Your task to perform on an android device: change timer sound Image 0: 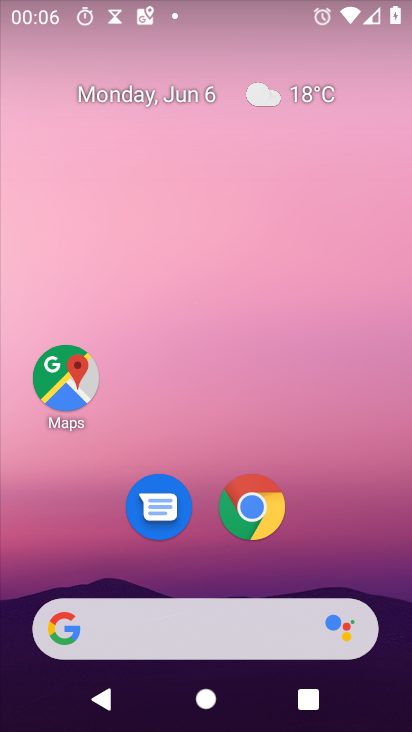
Step 0: drag from (228, 718) to (230, 45)
Your task to perform on an android device: change timer sound Image 1: 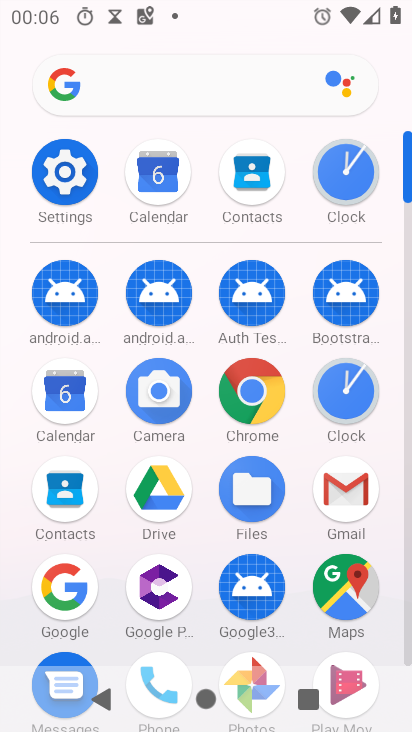
Step 1: click (342, 378)
Your task to perform on an android device: change timer sound Image 2: 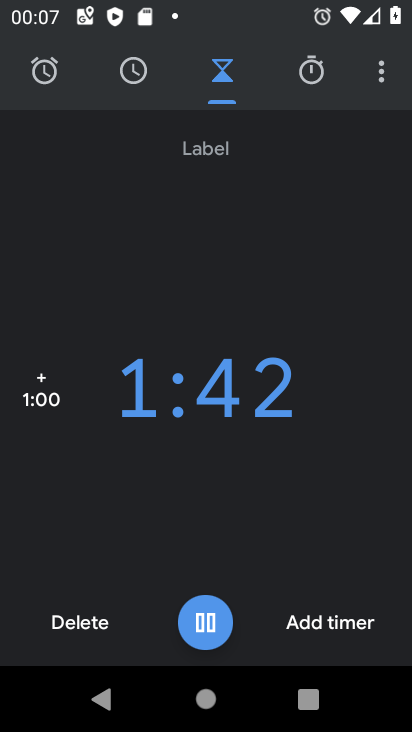
Step 2: click (383, 82)
Your task to perform on an android device: change timer sound Image 3: 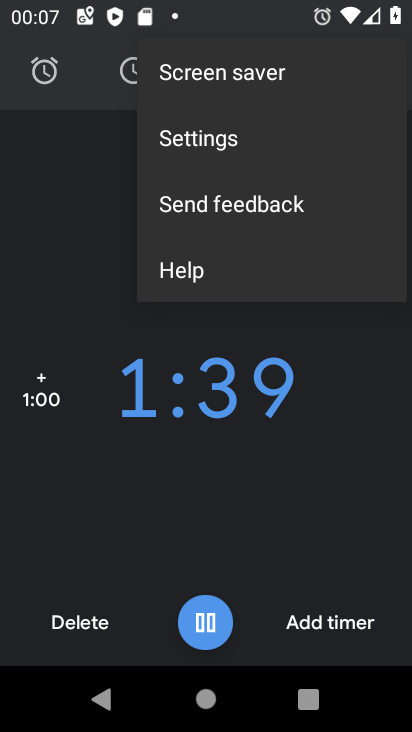
Step 3: click (181, 141)
Your task to perform on an android device: change timer sound Image 4: 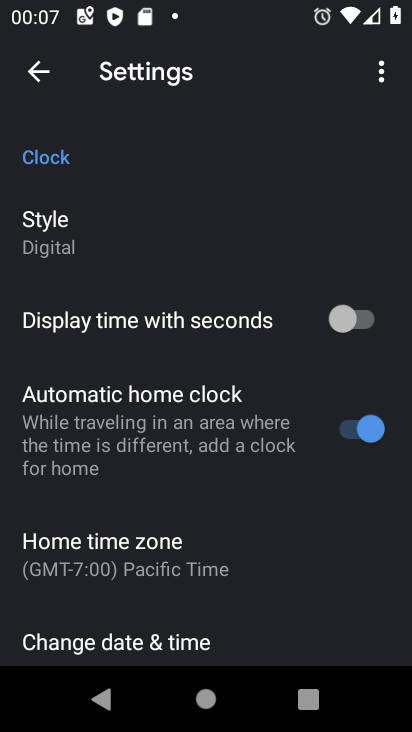
Step 4: drag from (169, 623) to (150, 102)
Your task to perform on an android device: change timer sound Image 5: 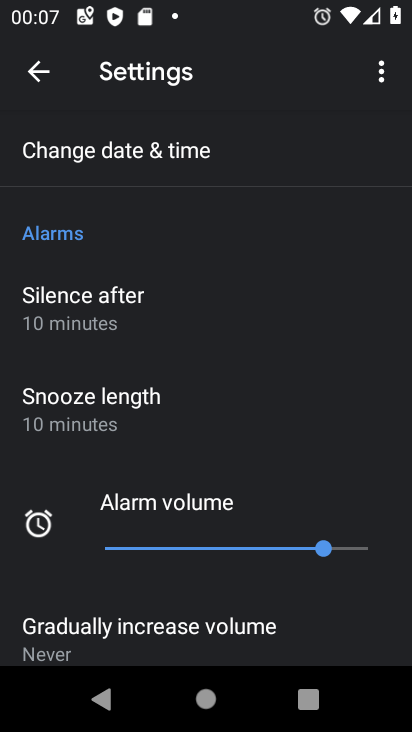
Step 5: drag from (203, 648) to (184, 163)
Your task to perform on an android device: change timer sound Image 6: 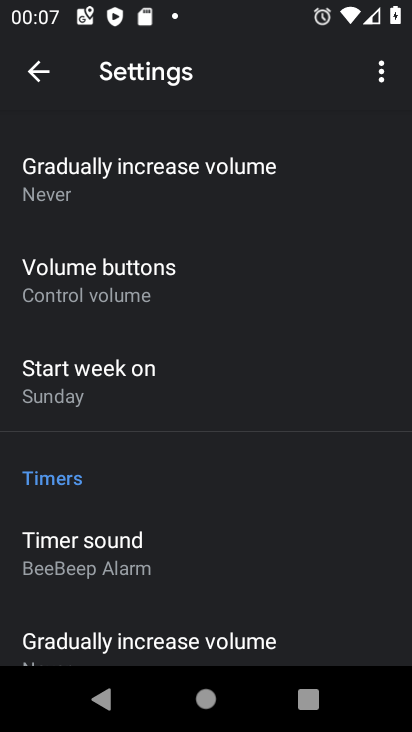
Step 6: click (93, 554)
Your task to perform on an android device: change timer sound Image 7: 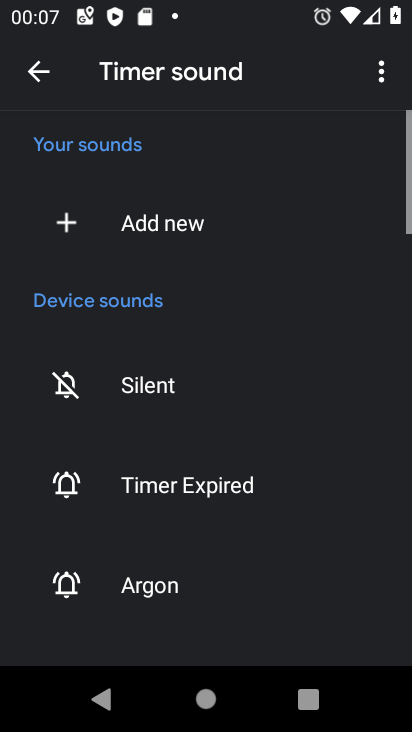
Step 7: drag from (135, 611) to (136, 261)
Your task to perform on an android device: change timer sound Image 8: 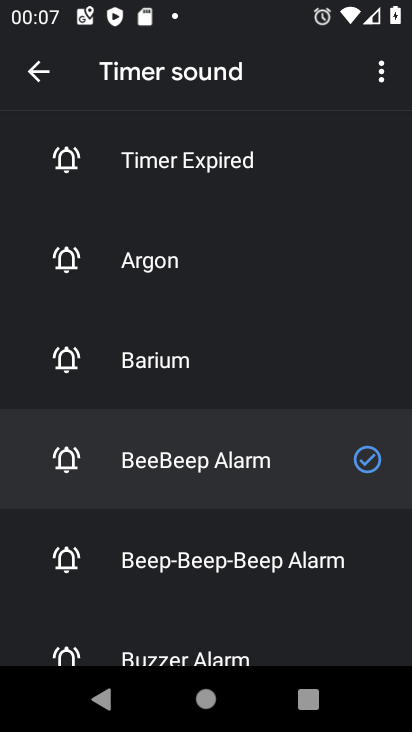
Step 8: click (89, 563)
Your task to perform on an android device: change timer sound Image 9: 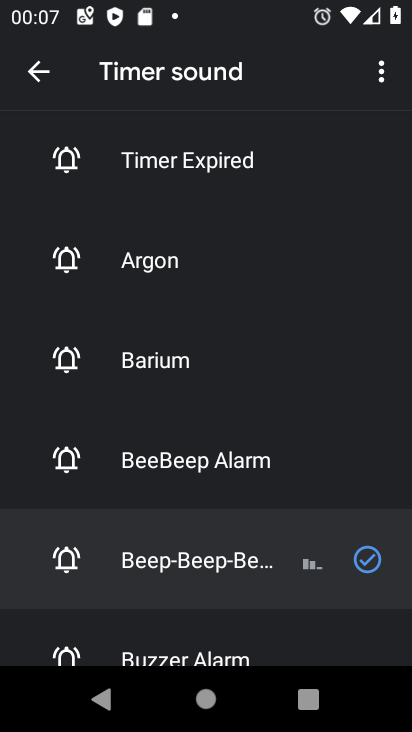
Step 9: task complete